Your task to perform on an android device: Go to display settings Image 0: 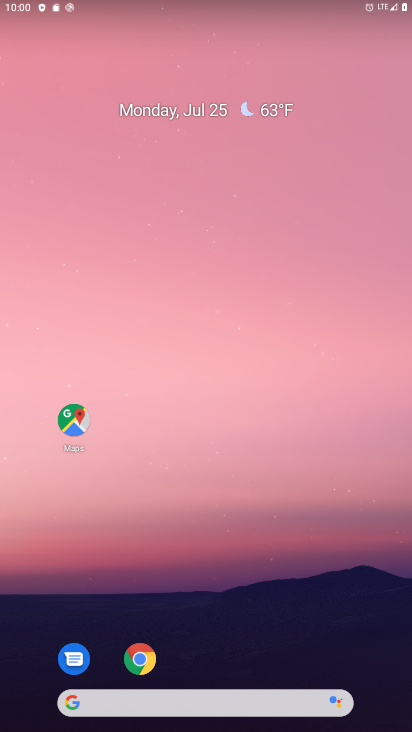
Step 0: drag from (211, 715) to (192, 181)
Your task to perform on an android device: Go to display settings Image 1: 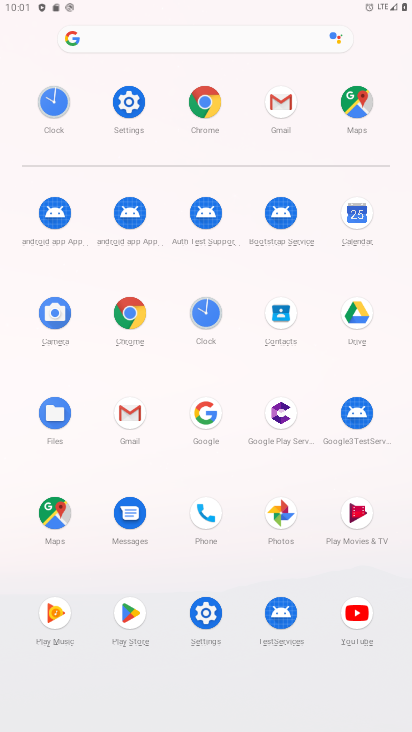
Step 1: click (127, 106)
Your task to perform on an android device: Go to display settings Image 2: 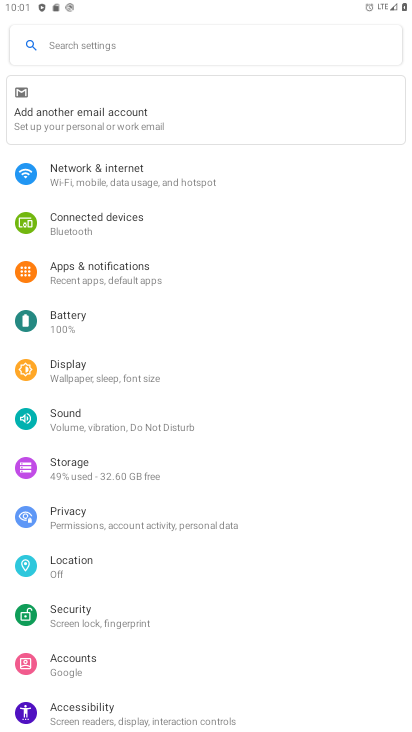
Step 2: click (59, 372)
Your task to perform on an android device: Go to display settings Image 3: 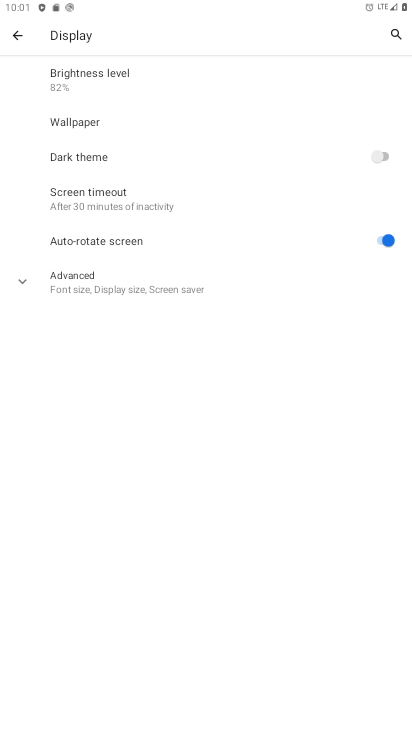
Step 3: task complete